Your task to perform on an android device: delete a single message in the gmail app Image 0: 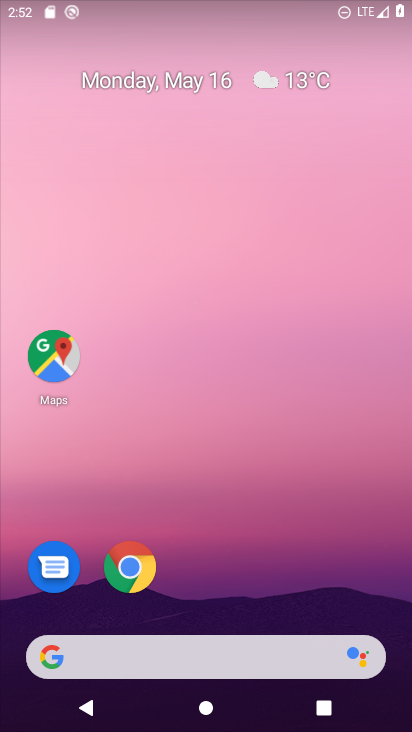
Step 0: drag from (302, 594) to (263, 177)
Your task to perform on an android device: delete a single message in the gmail app Image 1: 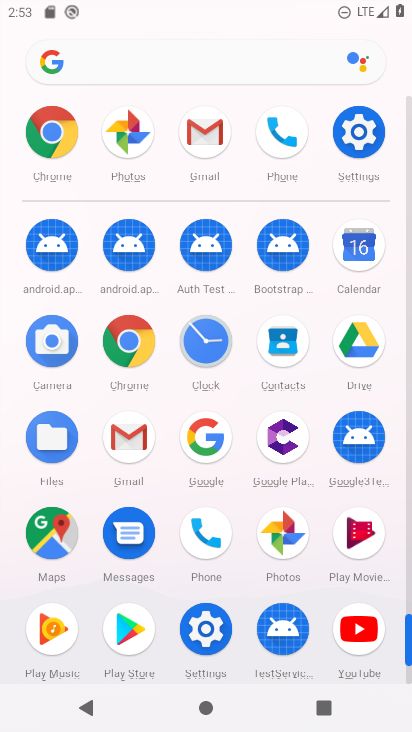
Step 1: click (190, 124)
Your task to perform on an android device: delete a single message in the gmail app Image 2: 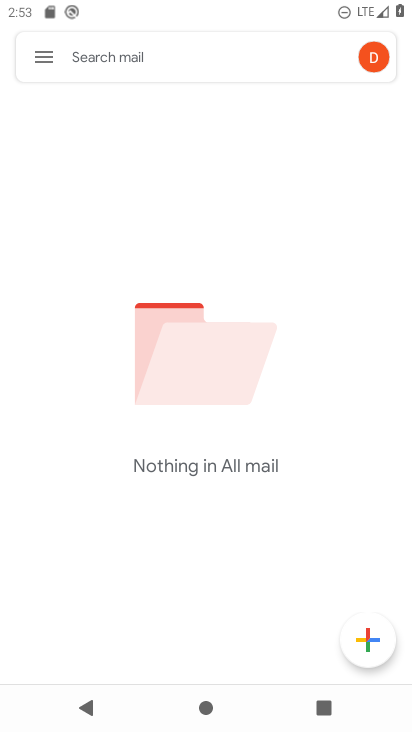
Step 2: task complete